Your task to perform on an android device: Go to wifi settings Image 0: 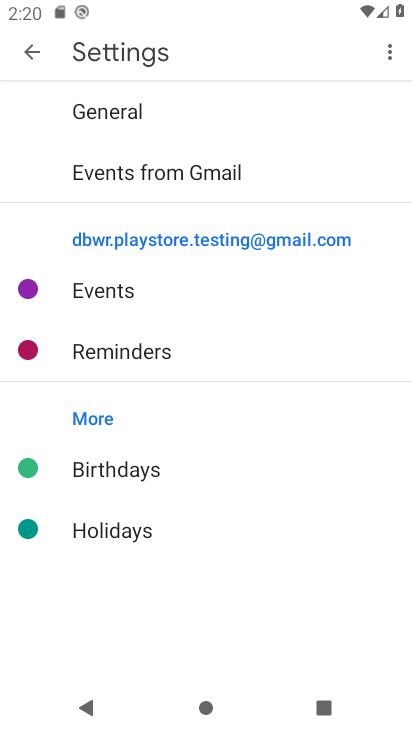
Step 0: press back button
Your task to perform on an android device: Go to wifi settings Image 1: 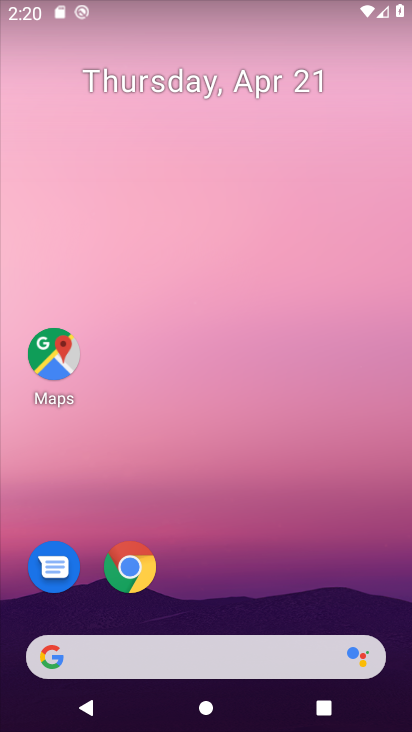
Step 1: drag from (318, 493) to (222, 40)
Your task to perform on an android device: Go to wifi settings Image 2: 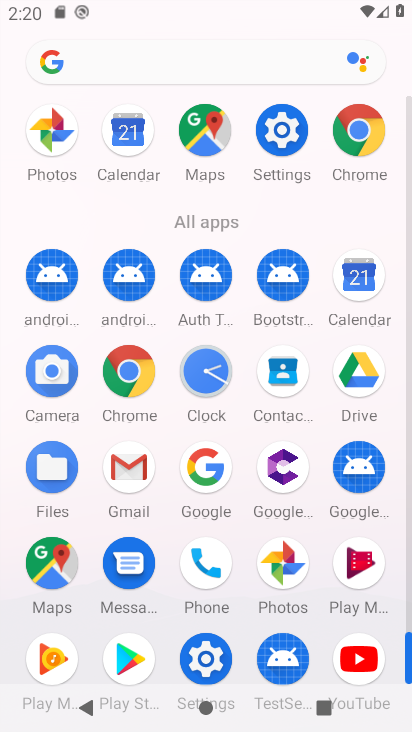
Step 2: click (204, 657)
Your task to perform on an android device: Go to wifi settings Image 3: 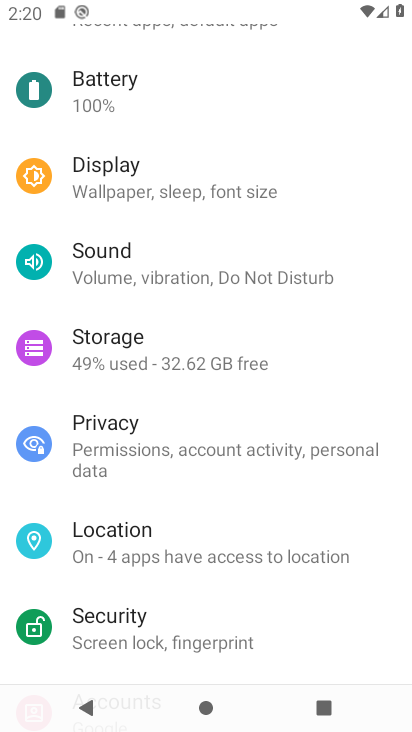
Step 3: drag from (260, 132) to (243, 574)
Your task to perform on an android device: Go to wifi settings Image 4: 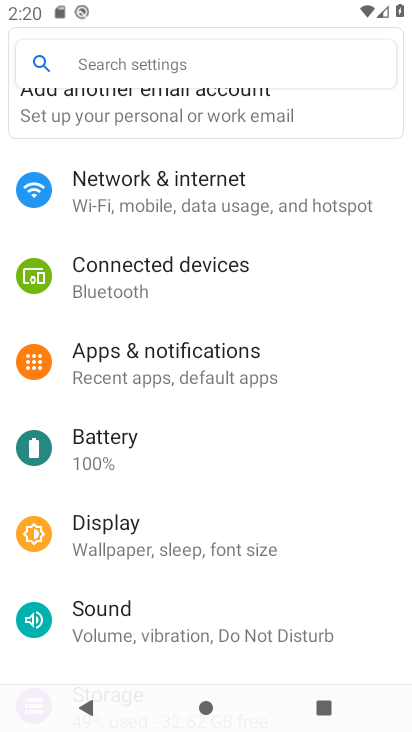
Step 4: click (208, 199)
Your task to perform on an android device: Go to wifi settings Image 5: 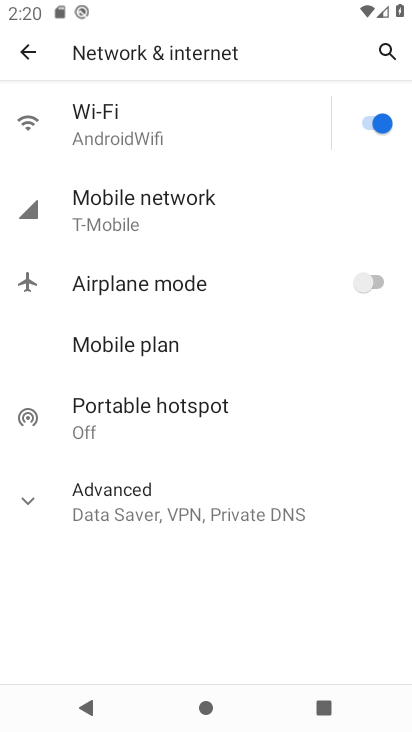
Step 5: click (170, 133)
Your task to perform on an android device: Go to wifi settings Image 6: 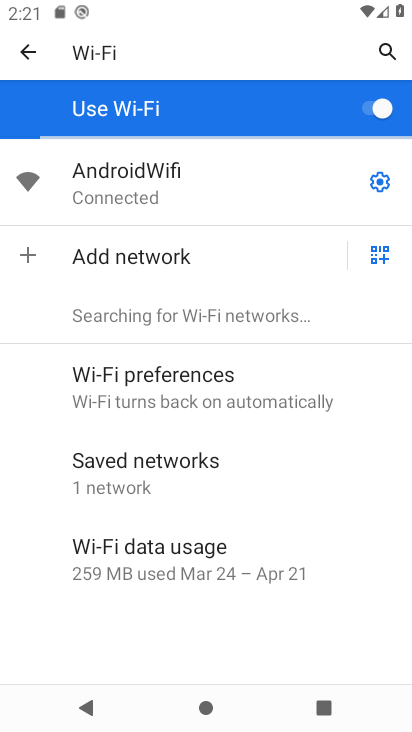
Step 6: task complete